Your task to perform on an android device: turn off airplane mode Image 0: 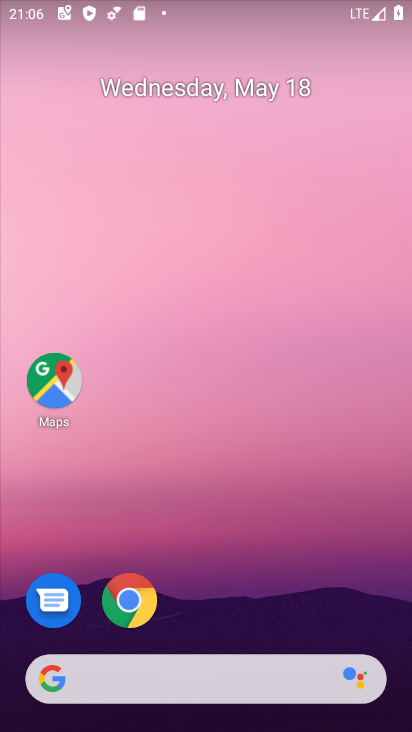
Step 0: drag from (385, 5) to (262, 591)
Your task to perform on an android device: turn off airplane mode Image 1: 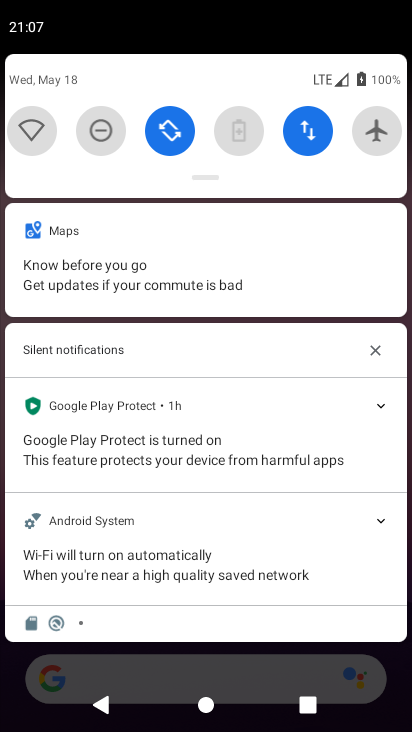
Step 1: task complete